Your task to perform on an android device: turn off notifications in google photos Image 0: 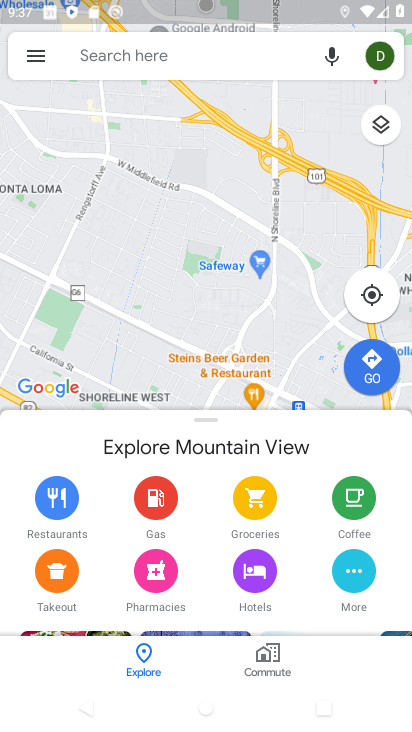
Step 0: drag from (243, 543) to (222, 299)
Your task to perform on an android device: turn off notifications in google photos Image 1: 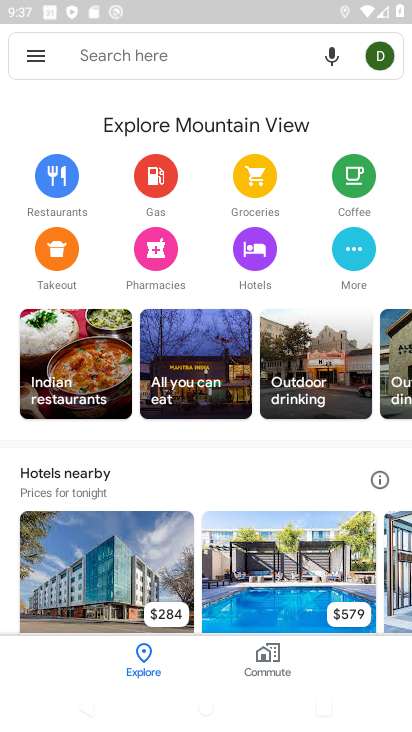
Step 1: press home button
Your task to perform on an android device: turn off notifications in google photos Image 2: 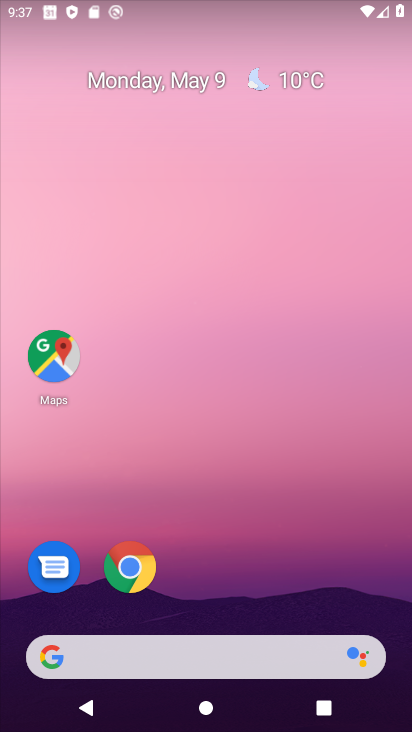
Step 2: drag from (264, 548) to (302, 77)
Your task to perform on an android device: turn off notifications in google photos Image 3: 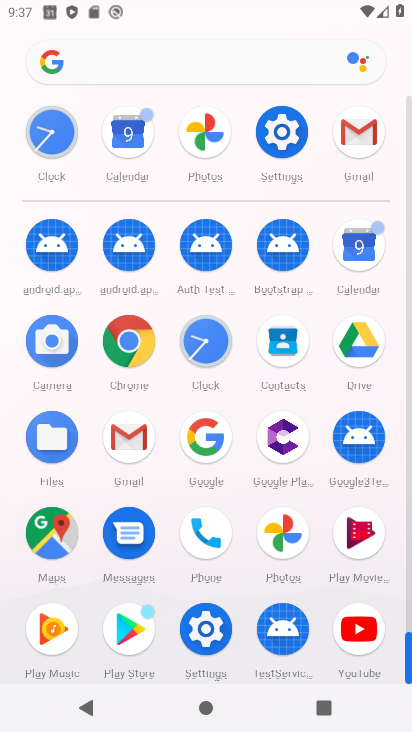
Step 3: click (276, 123)
Your task to perform on an android device: turn off notifications in google photos Image 4: 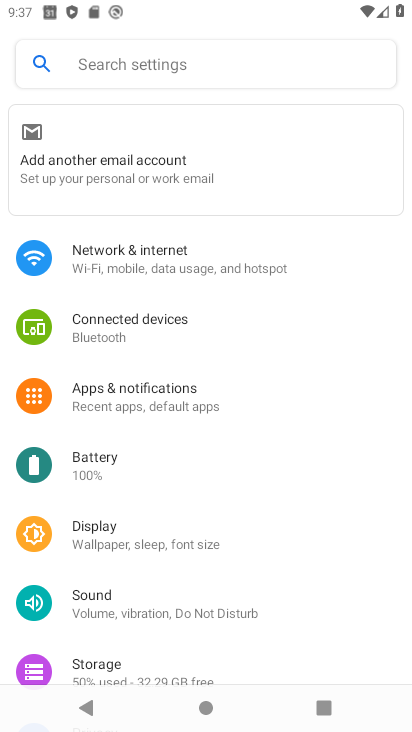
Step 4: click (185, 388)
Your task to perform on an android device: turn off notifications in google photos Image 5: 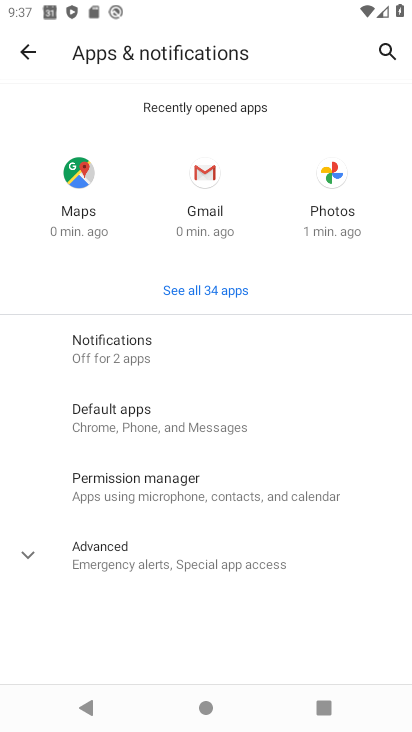
Step 5: click (343, 194)
Your task to perform on an android device: turn off notifications in google photos Image 6: 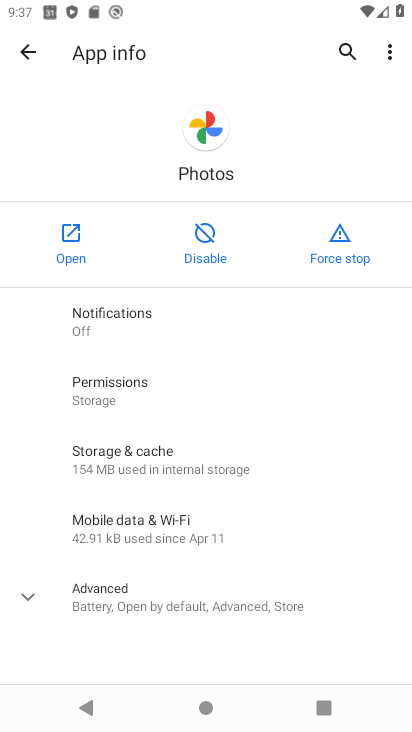
Step 6: click (175, 321)
Your task to perform on an android device: turn off notifications in google photos Image 7: 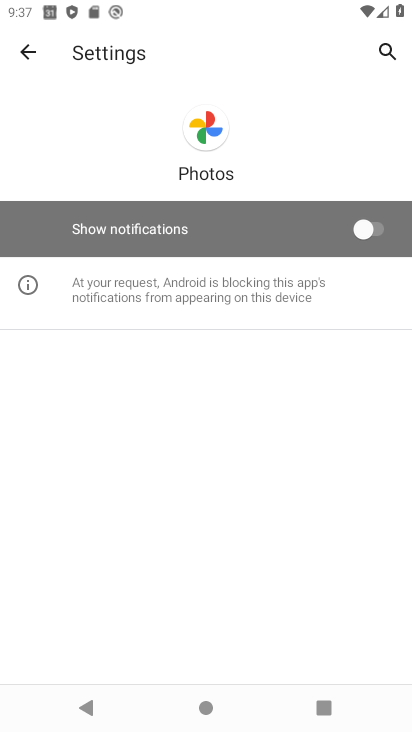
Step 7: task complete